Your task to perform on an android device: Go to wifi settings Image 0: 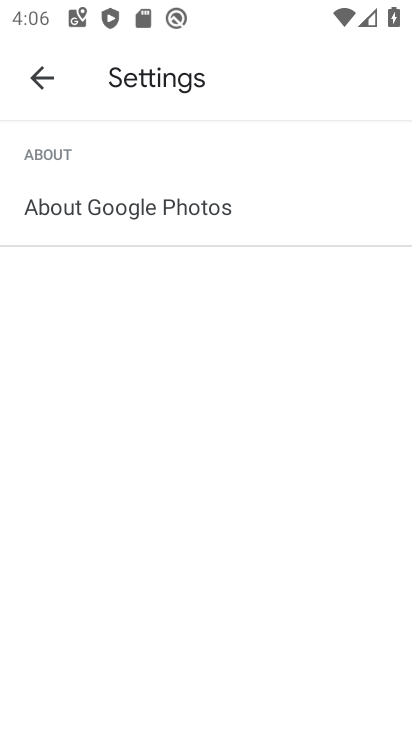
Step 0: press back button
Your task to perform on an android device: Go to wifi settings Image 1: 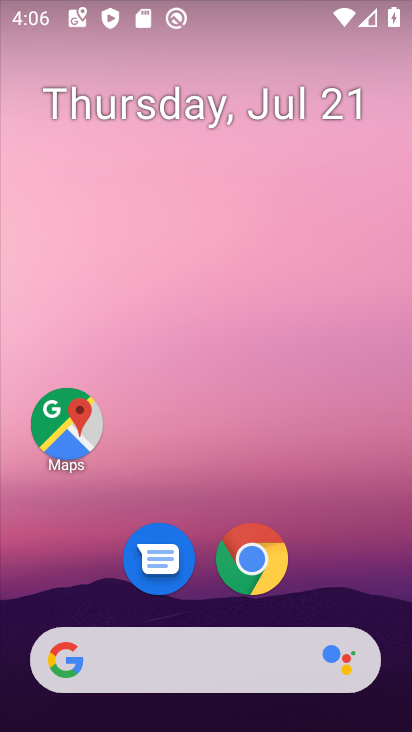
Step 1: drag from (124, 15) to (105, 606)
Your task to perform on an android device: Go to wifi settings Image 2: 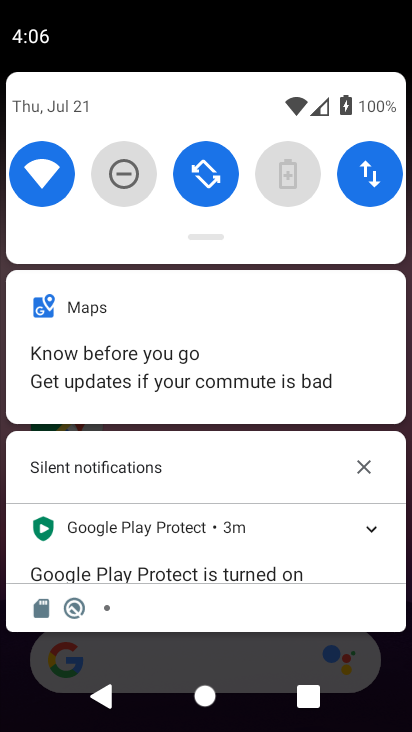
Step 2: click (38, 180)
Your task to perform on an android device: Go to wifi settings Image 3: 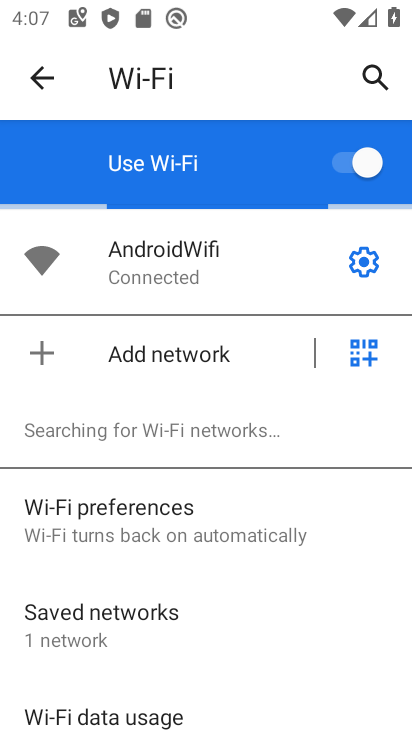
Step 3: task complete